Your task to perform on an android device: see tabs open on other devices in the chrome app Image 0: 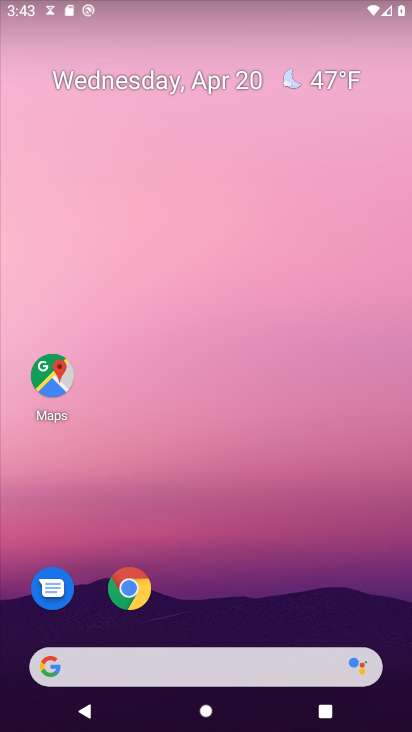
Step 0: click (117, 582)
Your task to perform on an android device: see tabs open on other devices in the chrome app Image 1: 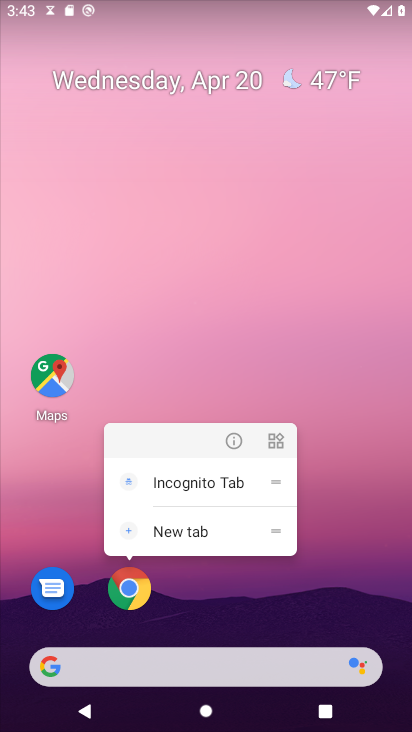
Step 1: click (136, 592)
Your task to perform on an android device: see tabs open on other devices in the chrome app Image 2: 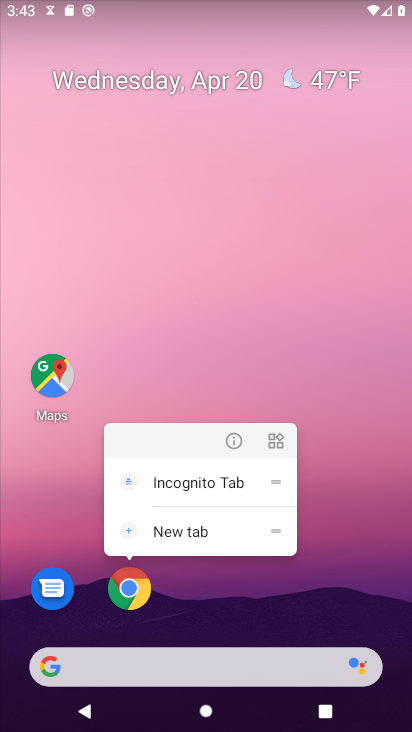
Step 2: click (137, 592)
Your task to perform on an android device: see tabs open on other devices in the chrome app Image 3: 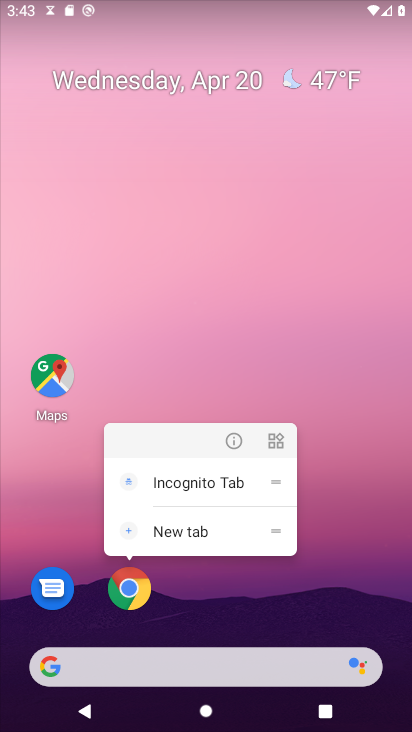
Step 3: click (138, 591)
Your task to perform on an android device: see tabs open on other devices in the chrome app Image 4: 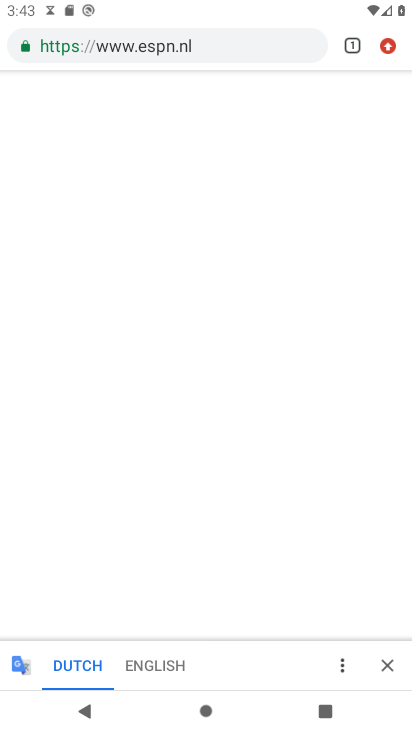
Step 4: click (380, 42)
Your task to perform on an android device: see tabs open on other devices in the chrome app Image 5: 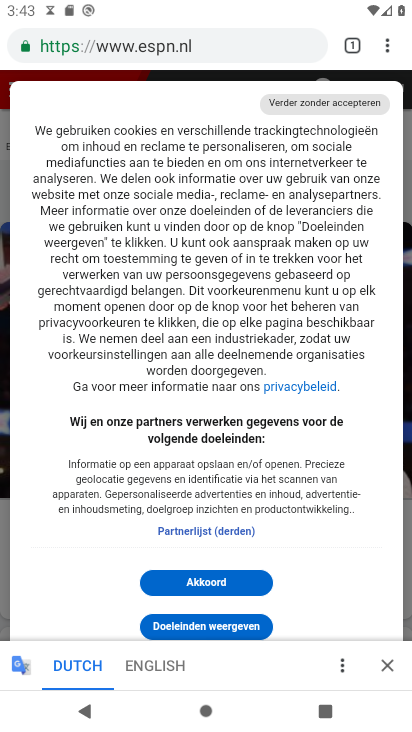
Step 5: click (380, 42)
Your task to perform on an android device: see tabs open on other devices in the chrome app Image 6: 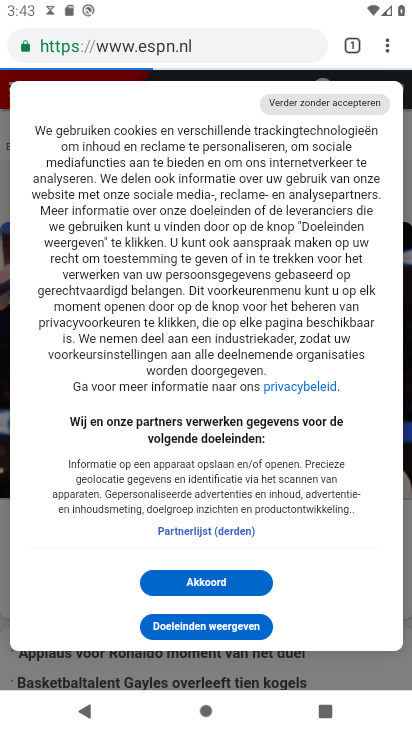
Step 6: click (381, 41)
Your task to perform on an android device: see tabs open on other devices in the chrome app Image 7: 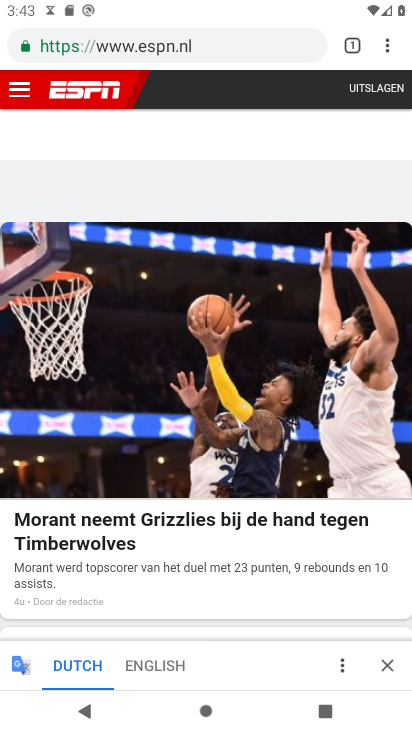
Step 7: click (381, 41)
Your task to perform on an android device: see tabs open on other devices in the chrome app Image 8: 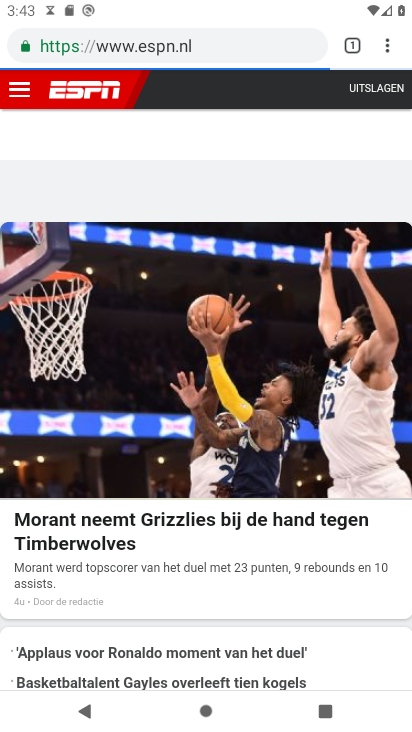
Step 8: click (381, 41)
Your task to perform on an android device: see tabs open on other devices in the chrome app Image 9: 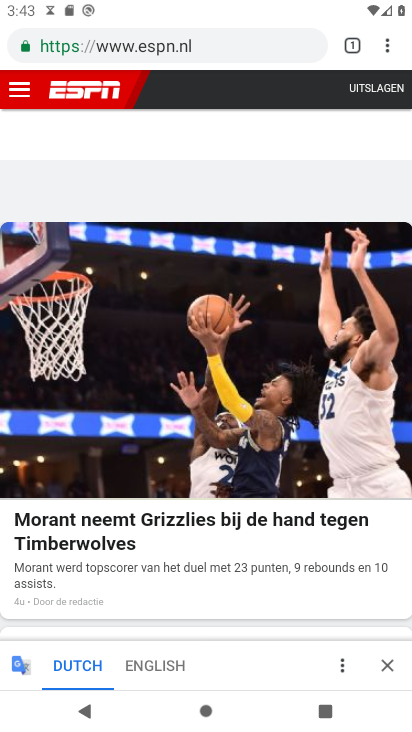
Step 9: click (381, 41)
Your task to perform on an android device: see tabs open on other devices in the chrome app Image 10: 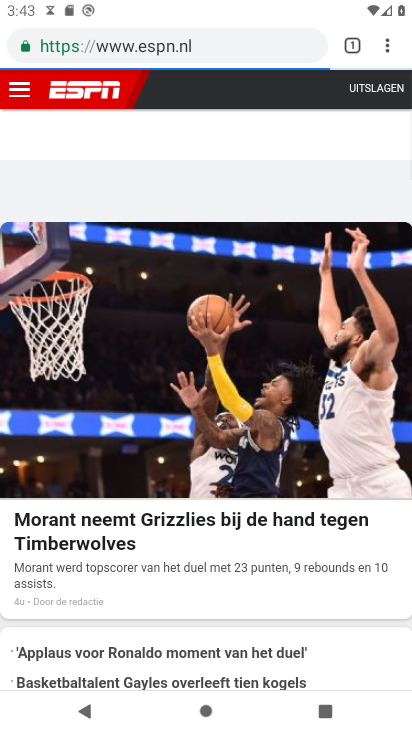
Step 10: click (386, 48)
Your task to perform on an android device: see tabs open on other devices in the chrome app Image 11: 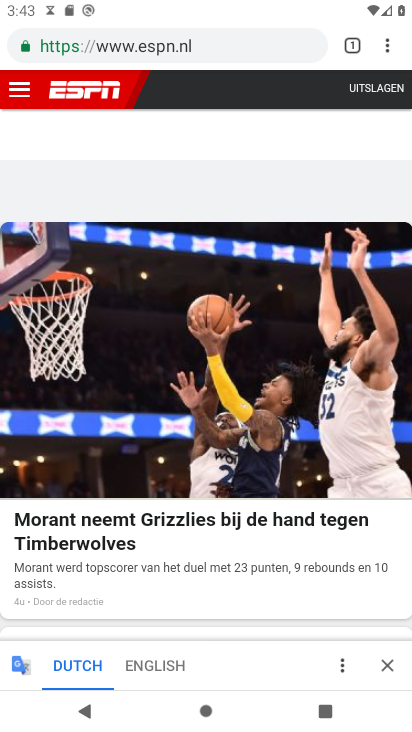
Step 11: click (387, 48)
Your task to perform on an android device: see tabs open on other devices in the chrome app Image 12: 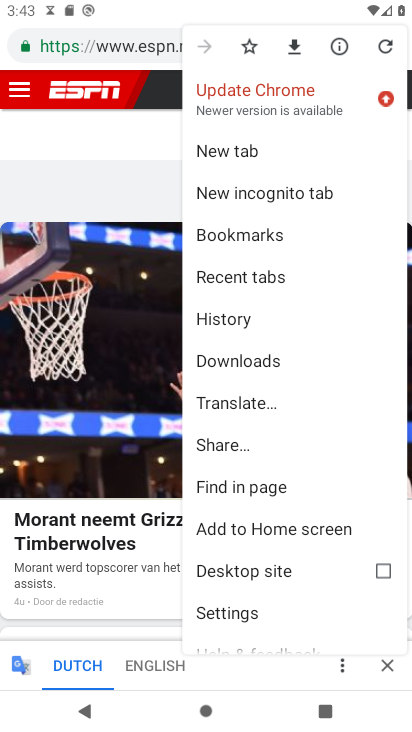
Step 12: click (249, 283)
Your task to perform on an android device: see tabs open on other devices in the chrome app Image 13: 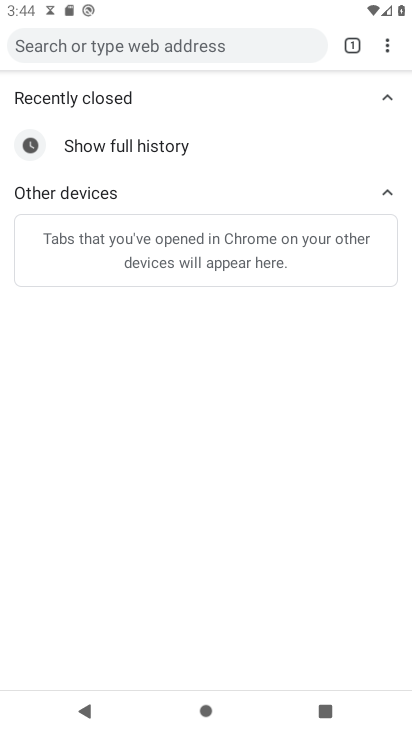
Step 13: task complete